Your task to perform on an android device: Open the calendar and show me this week's events Image 0: 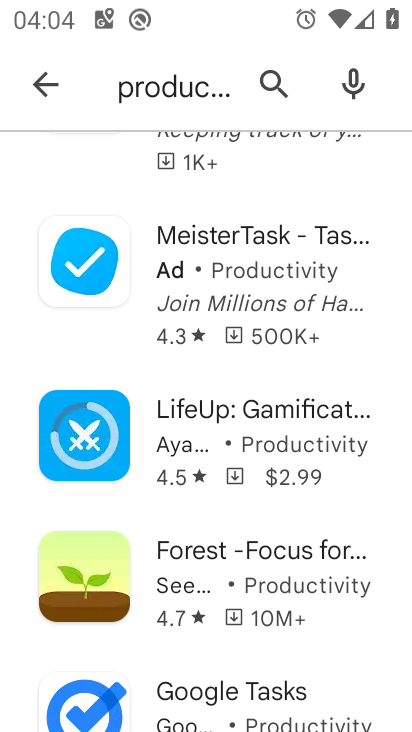
Step 0: press back button
Your task to perform on an android device: Open the calendar and show me this week's events Image 1: 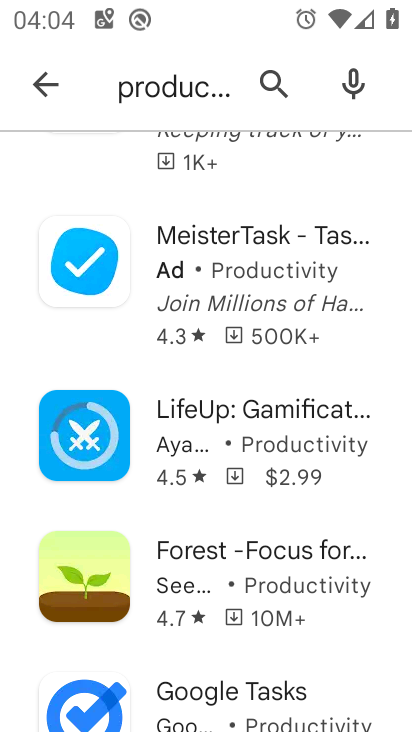
Step 1: press home button
Your task to perform on an android device: Open the calendar and show me this week's events Image 2: 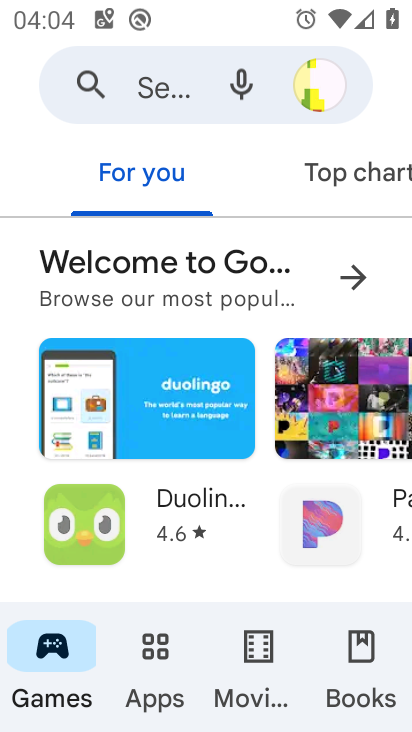
Step 2: press home button
Your task to perform on an android device: Open the calendar and show me this week's events Image 3: 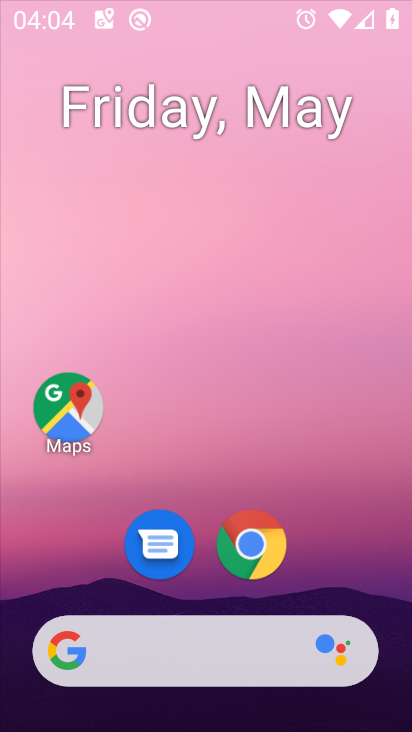
Step 3: press home button
Your task to perform on an android device: Open the calendar and show me this week's events Image 4: 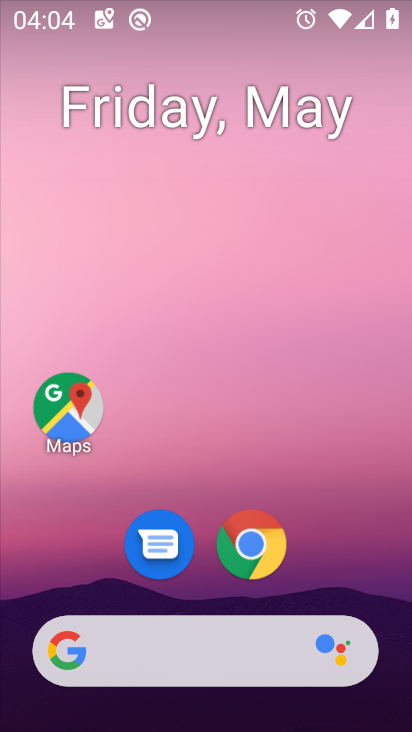
Step 4: drag from (313, 583) to (110, 12)
Your task to perform on an android device: Open the calendar and show me this week's events Image 5: 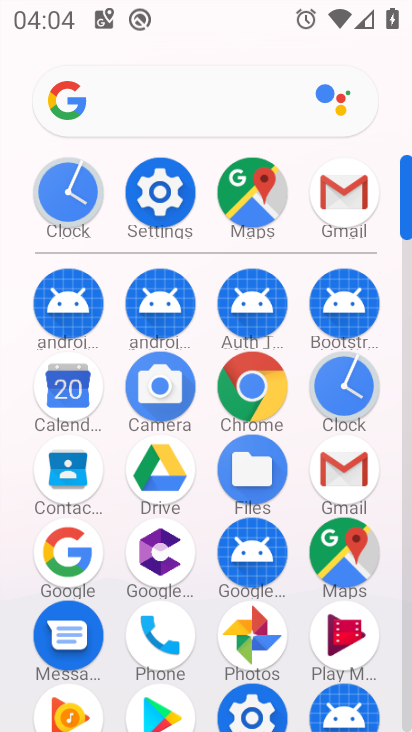
Step 5: drag from (314, 594) to (125, 105)
Your task to perform on an android device: Open the calendar and show me this week's events Image 6: 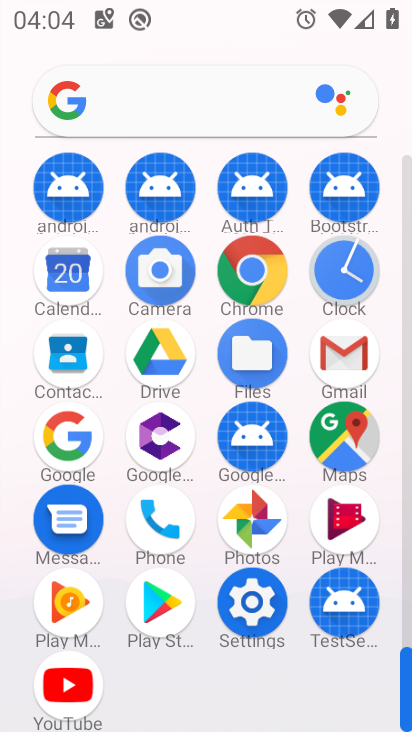
Step 6: click (48, 264)
Your task to perform on an android device: Open the calendar and show me this week's events Image 7: 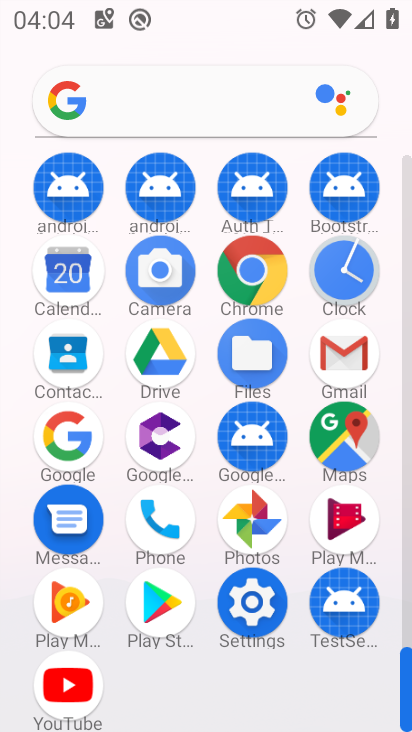
Step 7: task complete